Your task to perform on an android device: toggle javascript in the chrome app Image 0: 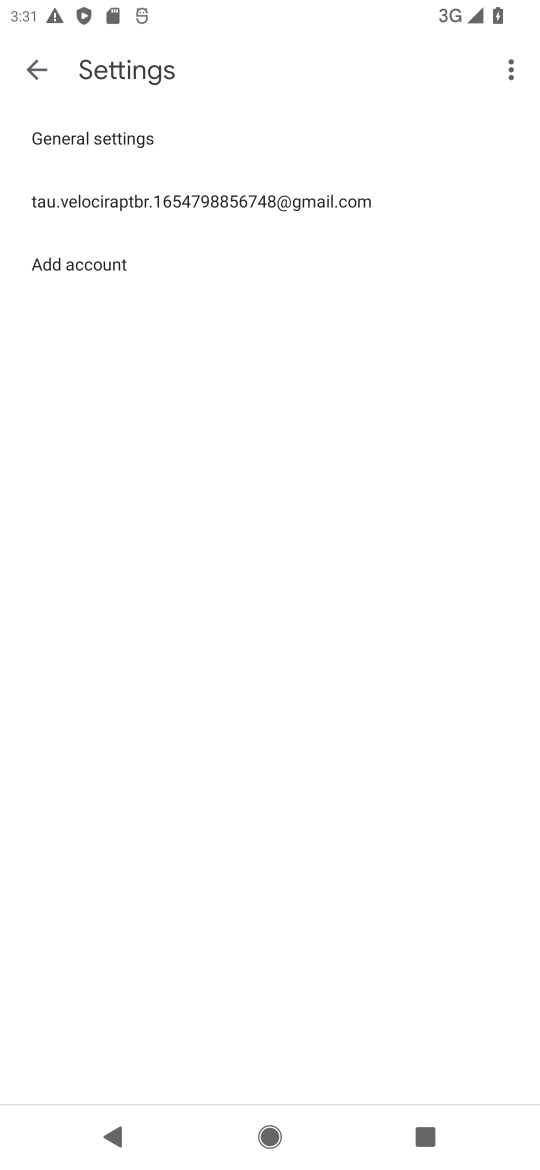
Step 0: task complete